Your task to perform on an android device: Go to Yahoo.com Image 0: 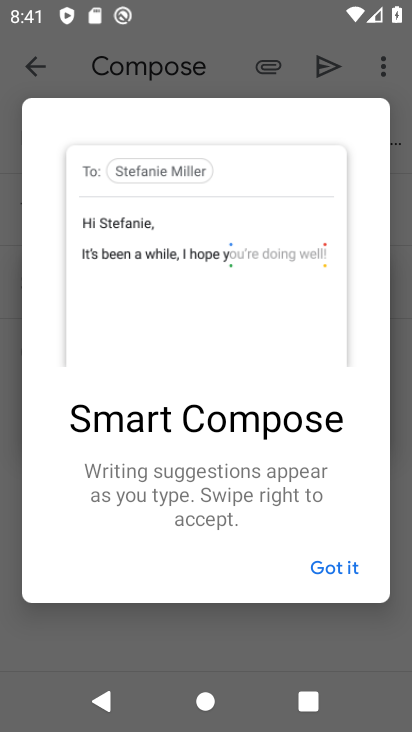
Step 0: press home button
Your task to perform on an android device: Go to Yahoo.com Image 1: 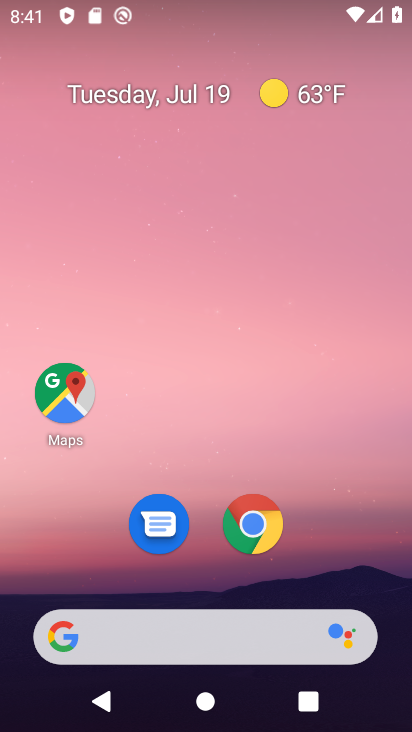
Step 1: click (249, 530)
Your task to perform on an android device: Go to Yahoo.com Image 2: 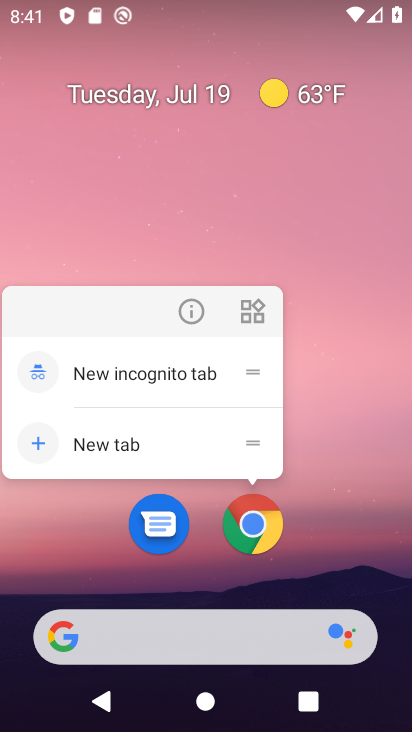
Step 2: click (253, 526)
Your task to perform on an android device: Go to Yahoo.com Image 3: 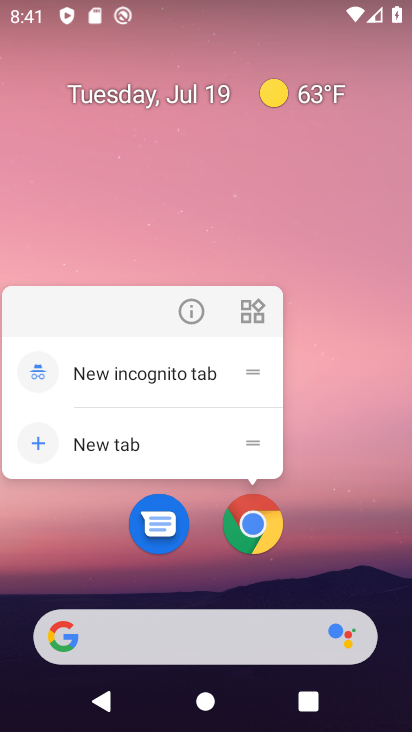
Step 3: click (255, 523)
Your task to perform on an android device: Go to Yahoo.com Image 4: 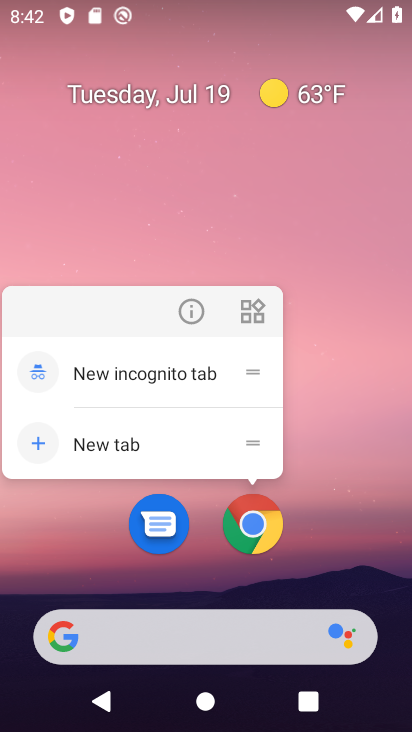
Step 4: click (257, 516)
Your task to perform on an android device: Go to Yahoo.com Image 5: 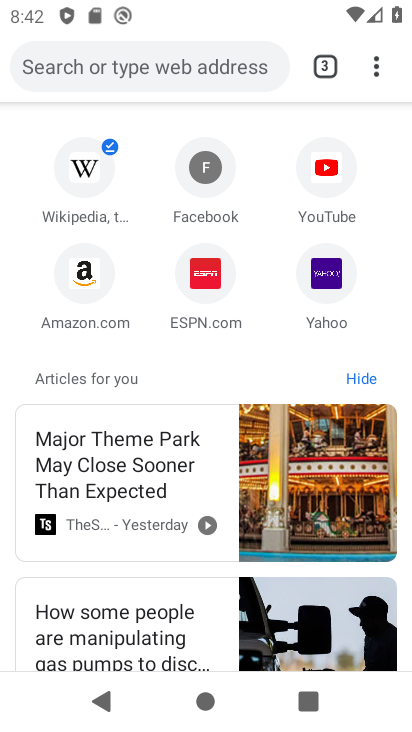
Step 5: click (342, 285)
Your task to perform on an android device: Go to Yahoo.com Image 6: 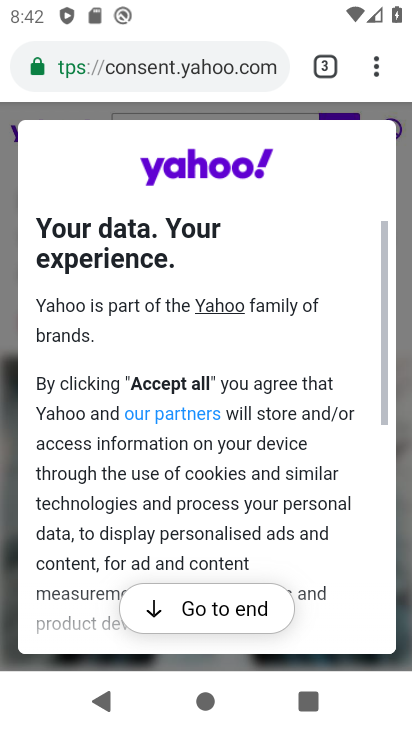
Step 6: click (220, 614)
Your task to perform on an android device: Go to Yahoo.com Image 7: 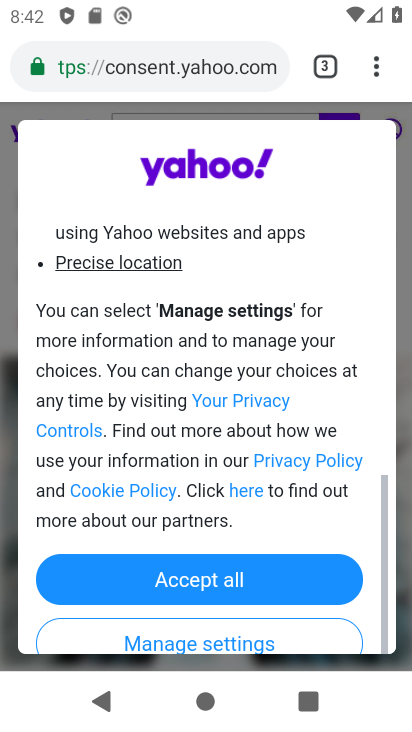
Step 7: click (239, 589)
Your task to perform on an android device: Go to Yahoo.com Image 8: 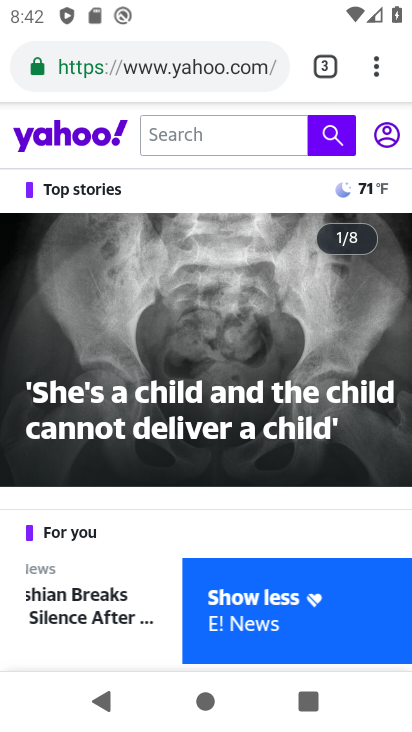
Step 8: task complete